Your task to perform on an android device: When is my next appointment? Image 0: 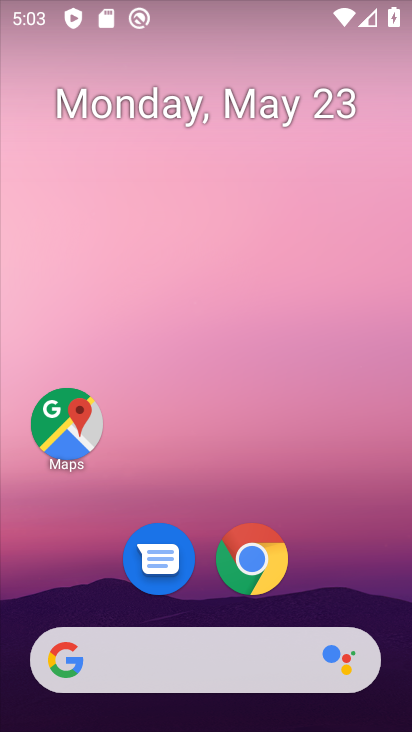
Step 0: drag from (323, 652) to (410, 661)
Your task to perform on an android device: When is my next appointment? Image 1: 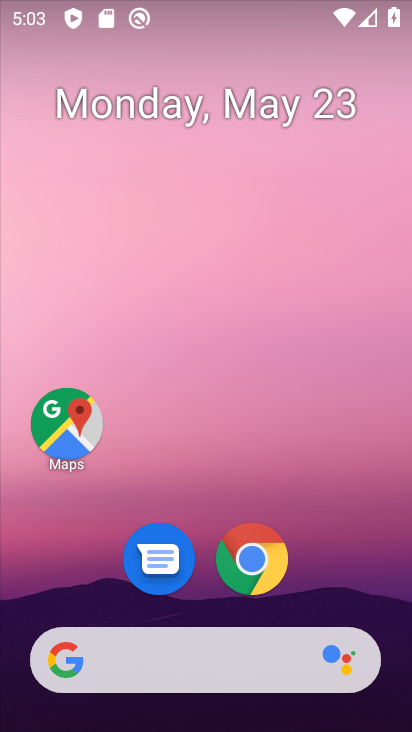
Step 1: drag from (258, 645) to (298, 0)
Your task to perform on an android device: When is my next appointment? Image 2: 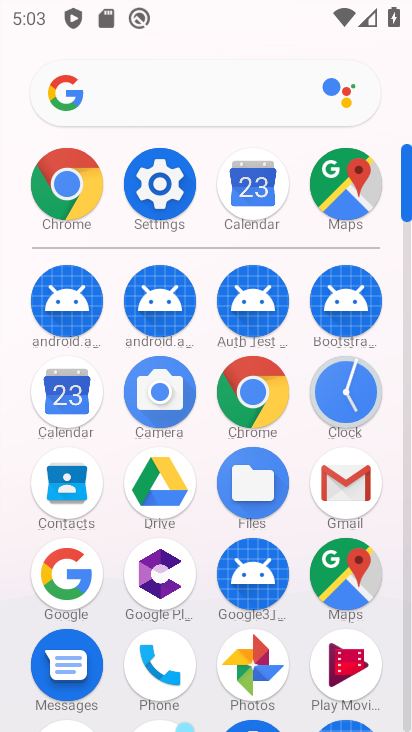
Step 2: click (44, 382)
Your task to perform on an android device: When is my next appointment? Image 3: 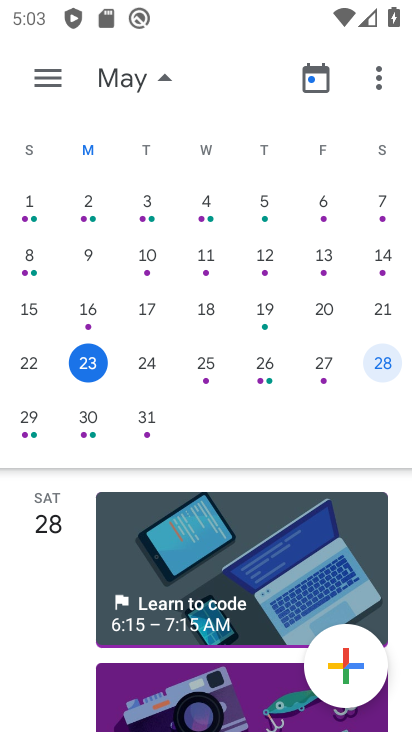
Step 3: click (87, 368)
Your task to perform on an android device: When is my next appointment? Image 4: 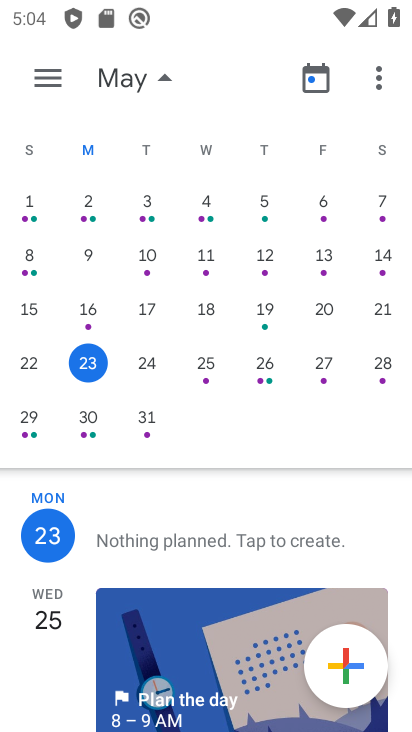
Step 4: task complete